Your task to perform on an android device: open wifi settings Image 0: 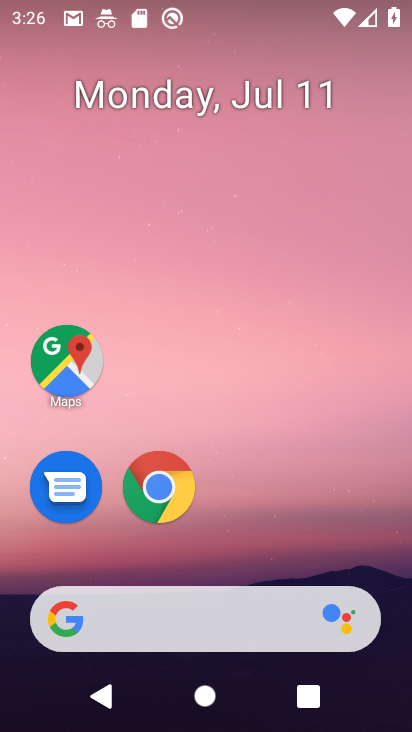
Step 0: drag from (188, 607) to (281, 5)
Your task to perform on an android device: open wifi settings Image 1: 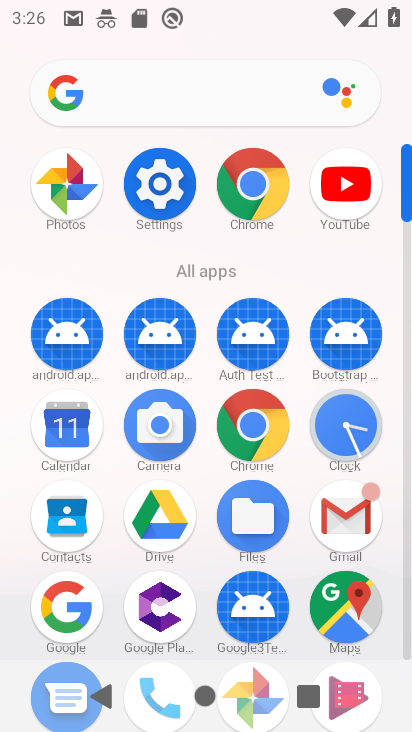
Step 1: click (172, 186)
Your task to perform on an android device: open wifi settings Image 2: 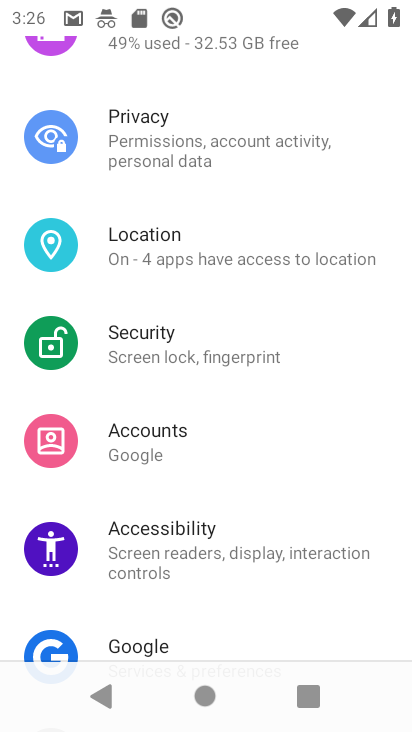
Step 2: drag from (272, 99) to (191, 586)
Your task to perform on an android device: open wifi settings Image 3: 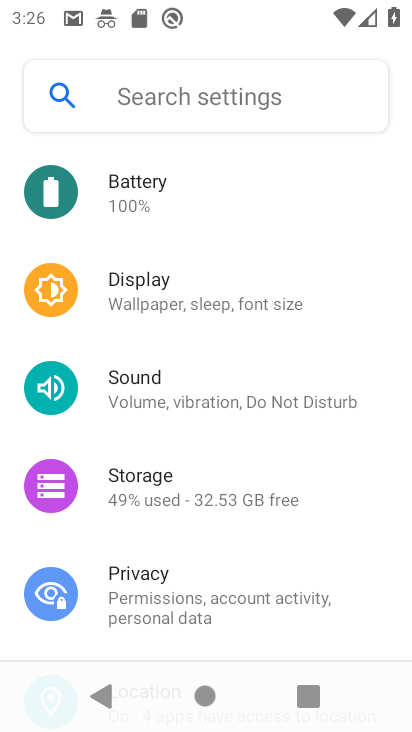
Step 3: drag from (241, 227) to (228, 563)
Your task to perform on an android device: open wifi settings Image 4: 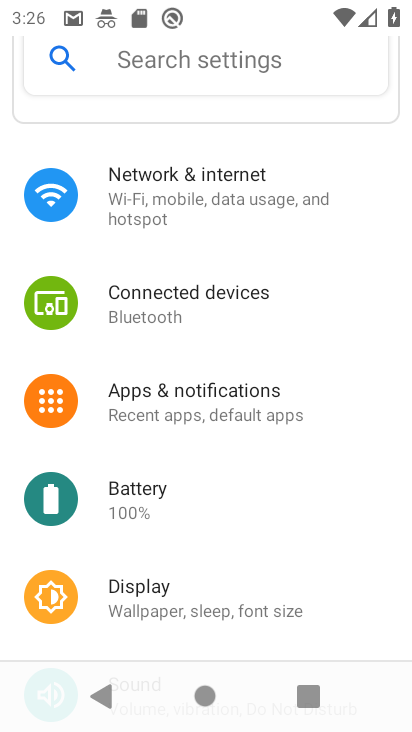
Step 4: click (215, 186)
Your task to perform on an android device: open wifi settings Image 5: 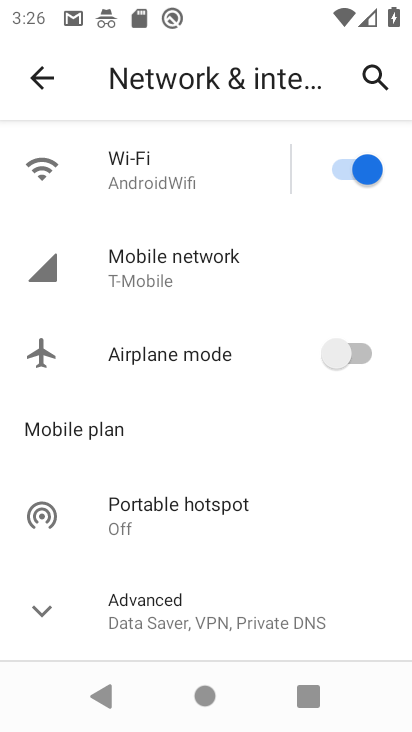
Step 5: click (162, 168)
Your task to perform on an android device: open wifi settings Image 6: 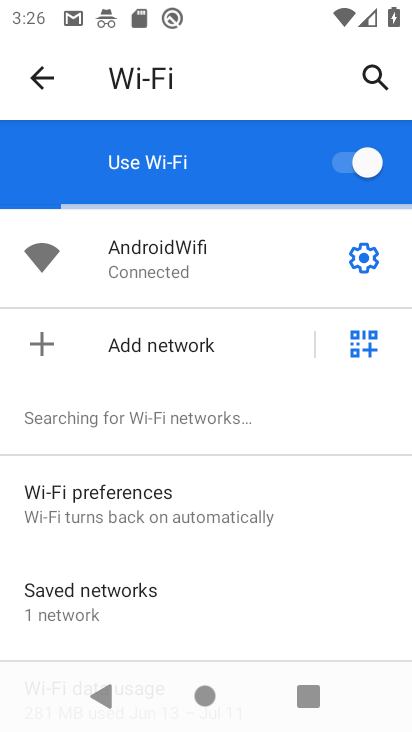
Step 6: task complete